Your task to perform on an android device: find snoozed emails in the gmail app Image 0: 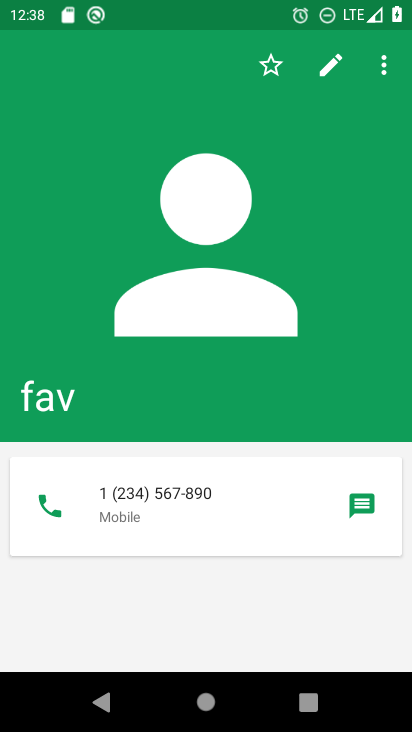
Step 0: press home button
Your task to perform on an android device: find snoozed emails in the gmail app Image 1: 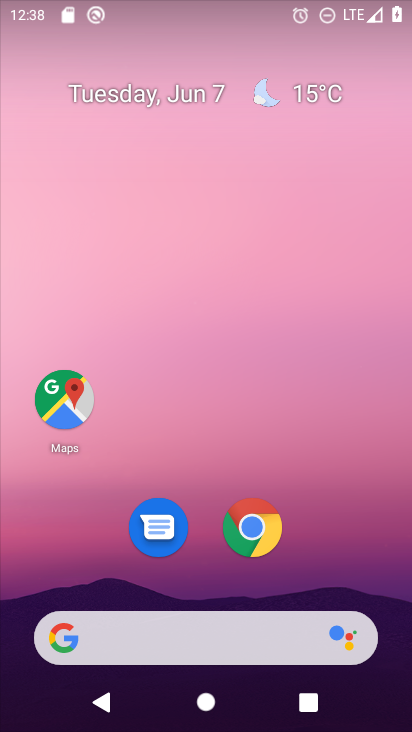
Step 1: drag from (352, 571) to (373, 105)
Your task to perform on an android device: find snoozed emails in the gmail app Image 2: 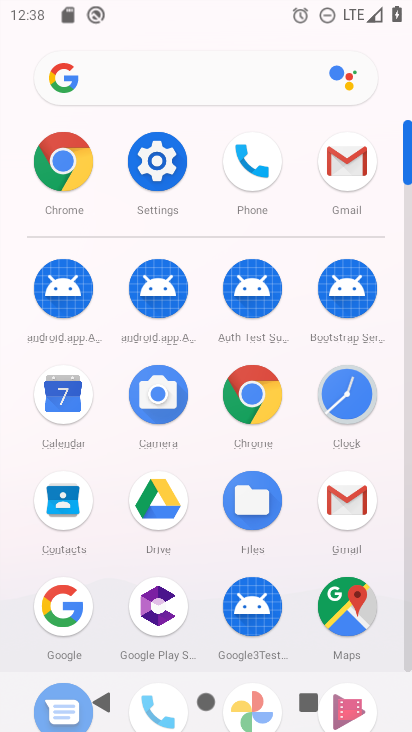
Step 2: click (356, 500)
Your task to perform on an android device: find snoozed emails in the gmail app Image 3: 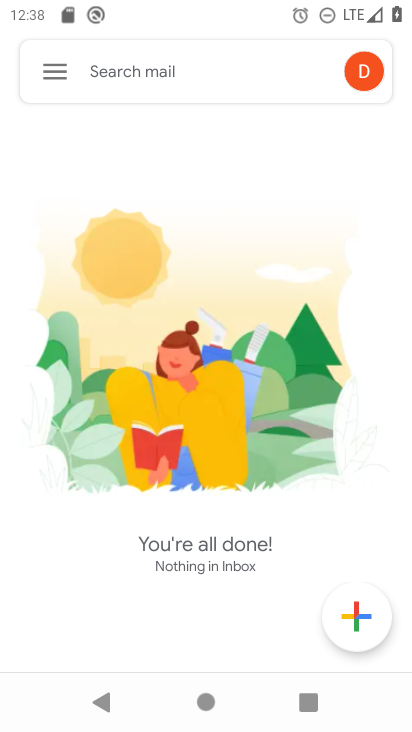
Step 3: click (69, 79)
Your task to perform on an android device: find snoozed emails in the gmail app Image 4: 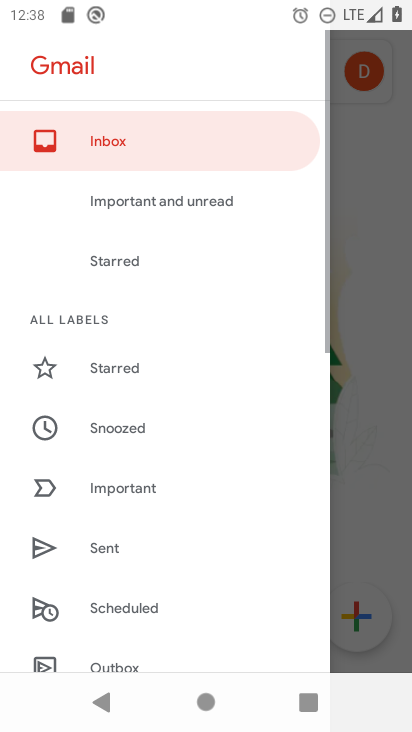
Step 4: drag from (238, 366) to (244, 295)
Your task to perform on an android device: find snoozed emails in the gmail app Image 5: 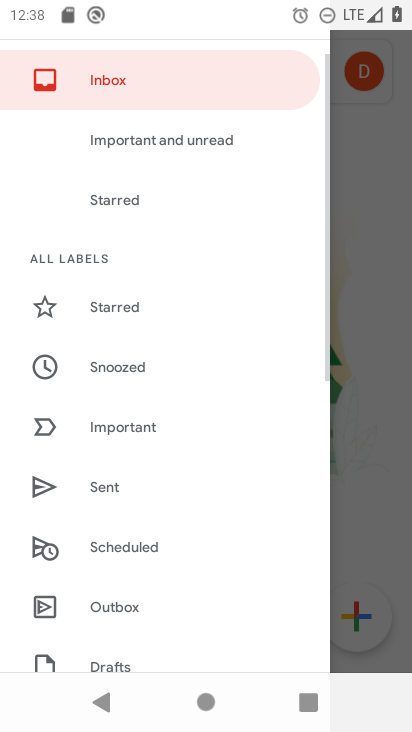
Step 5: drag from (260, 427) to (265, 297)
Your task to perform on an android device: find snoozed emails in the gmail app Image 6: 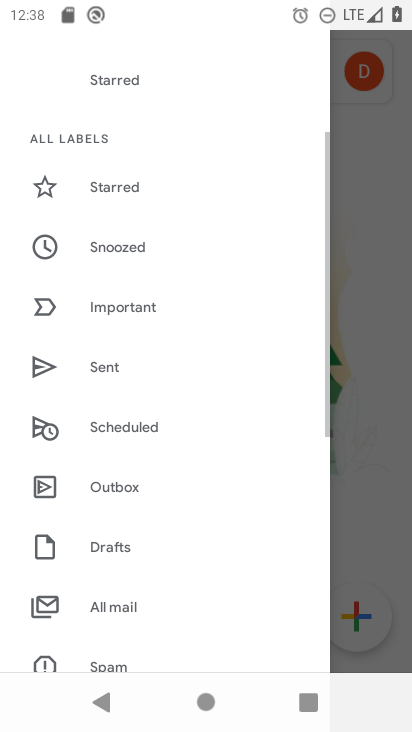
Step 6: drag from (245, 451) to (243, 320)
Your task to perform on an android device: find snoozed emails in the gmail app Image 7: 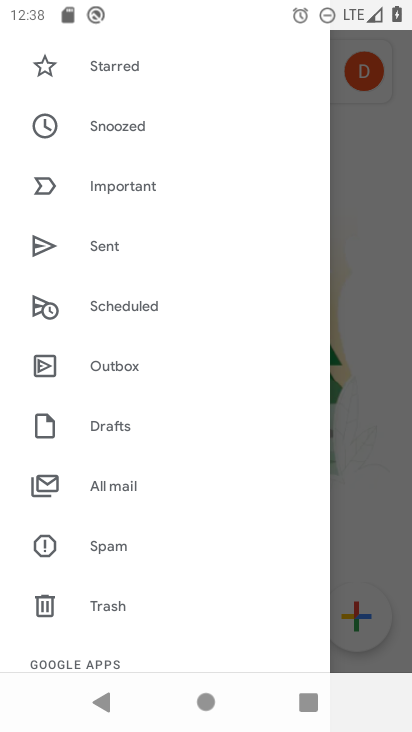
Step 7: click (163, 129)
Your task to perform on an android device: find snoozed emails in the gmail app Image 8: 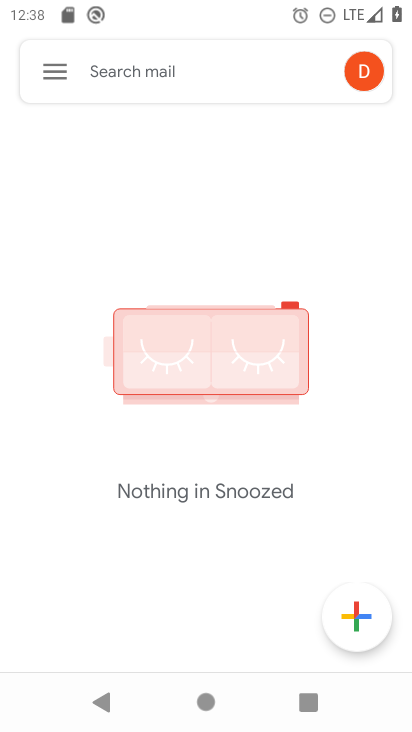
Step 8: task complete